Your task to perform on an android device: snooze an email in the gmail app Image 0: 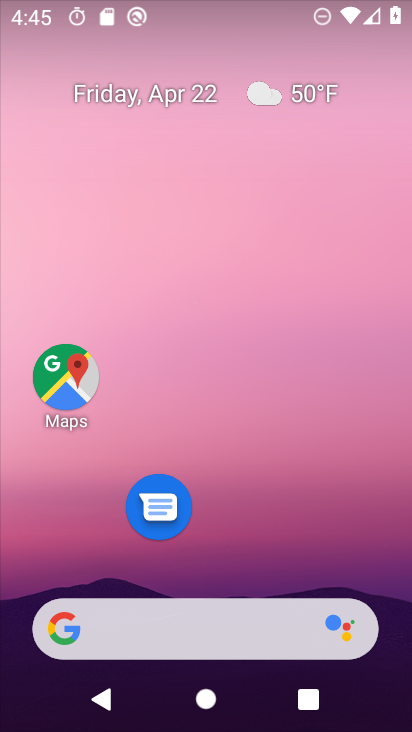
Step 0: drag from (194, 505) to (312, 51)
Your task to perform on an android device: snooze an email in the gmail app Image 1: 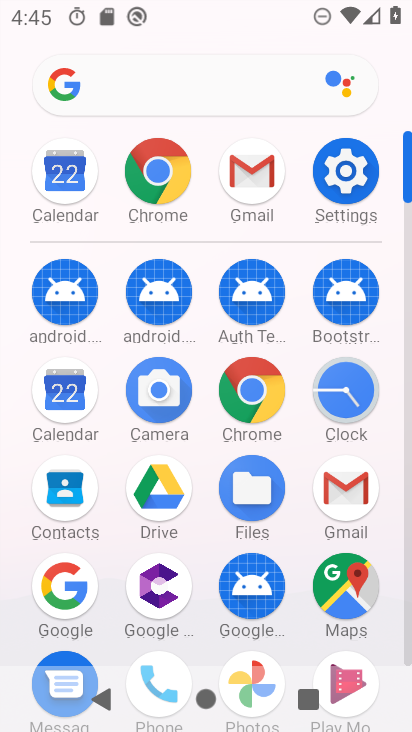
Step 1: click (246, 172)
Your task to perform on an android device: snooze an email in the gmail app Image 2: 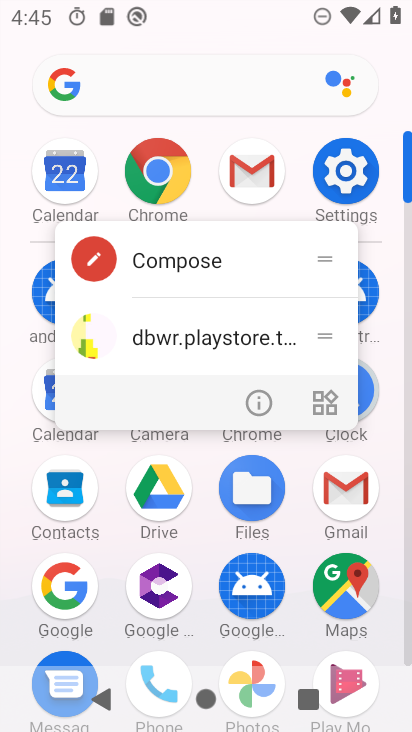
Step 2: click (254, 169)
Your task to perform on an android device: snooze an email in the gmail app Image 3: 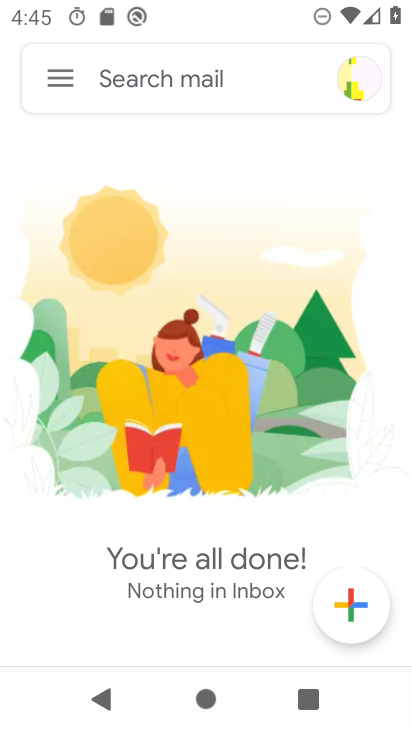
Step 3: click (54, 77)
Your task to perform on an android device: snooze an email in the gmail app Image 4: 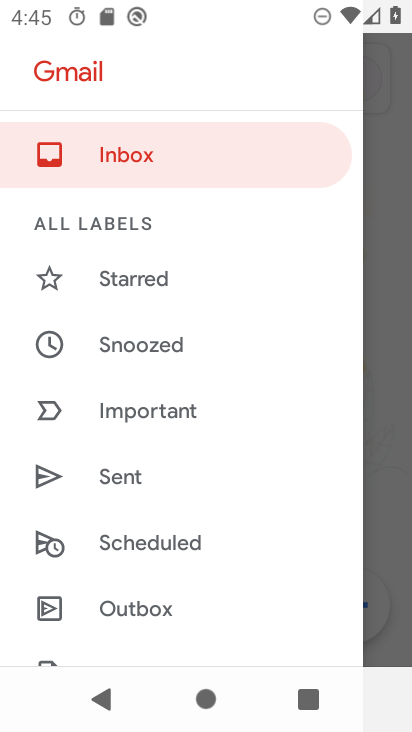
Step 4: drag from (145, 582) to (291, 39)
Your task to perform on an android device: snooze an email in the gmail app Image 5: 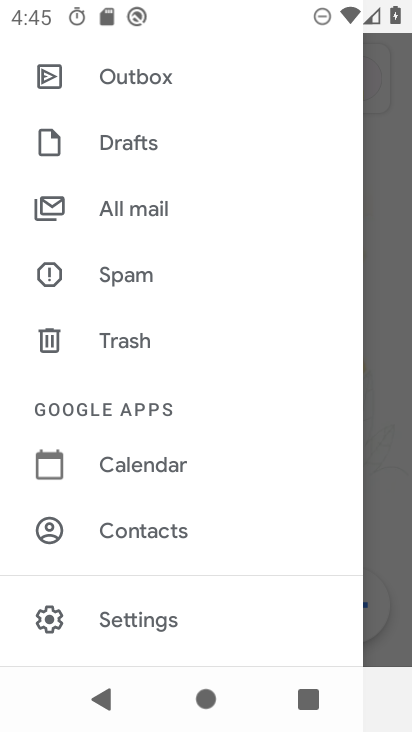
Step 5: click (151, 201)
Your task to perform on an android device: snooze an email in the gmail app Image 6: 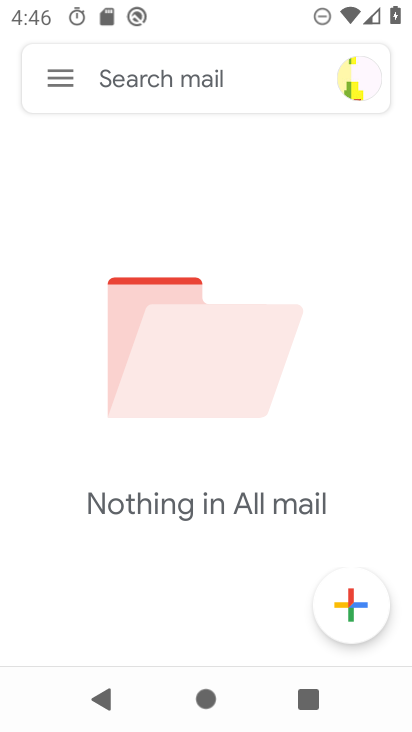
Step 6: task complete